Your task to perform on an android device: choose inbox layout in the gmail app Image 0: 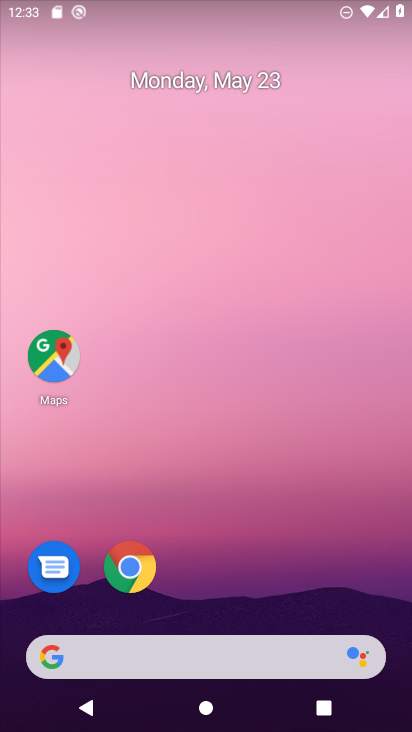
Step 0: drag from (186, 627) to (219, 137)
Your task to perform on an android device: choose inbox layout in the gmail app Image 1: 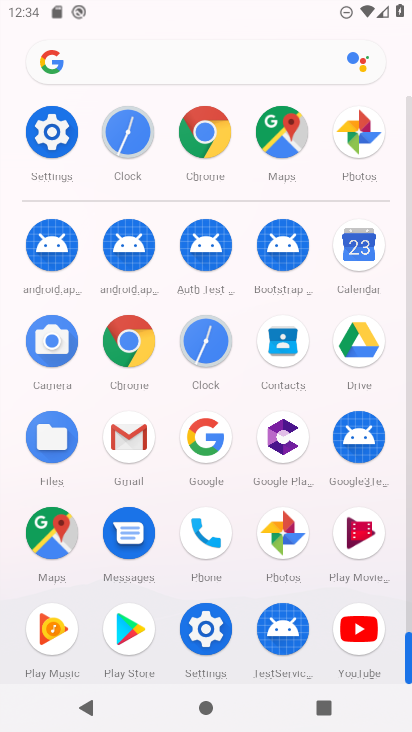
Step 1: click (219, 137)
Your task to perform on an android device: choose inbox layout in the gmail app Image 2: 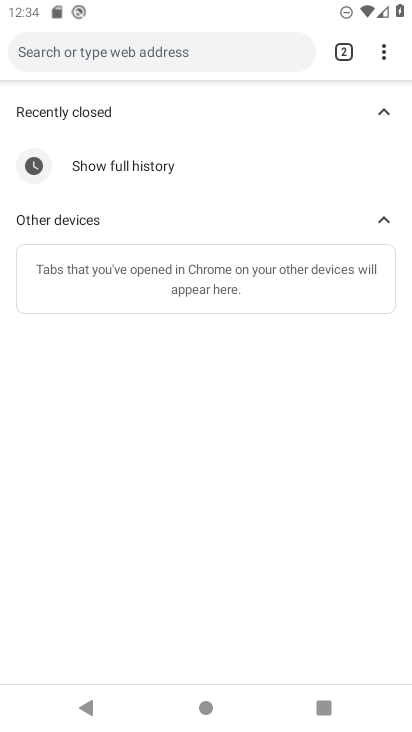
Step 2: press home button
Your task to perform on an android device: choose inbox layout in the gmail app Image 3: 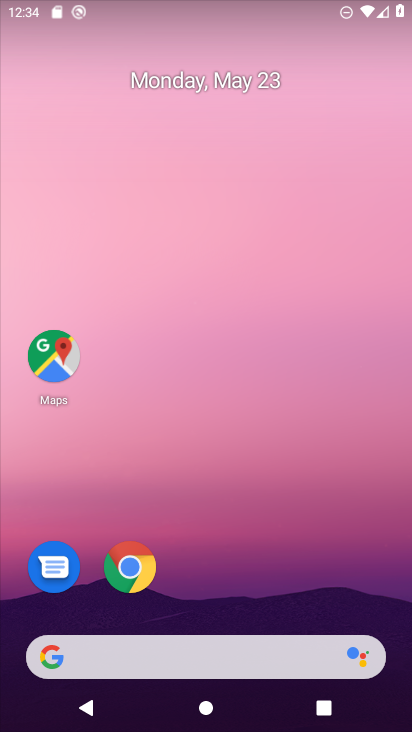
Step 3: click (220, 112)
Your task to perform on an android device: choose inbox layout in the gmail app Image 4: 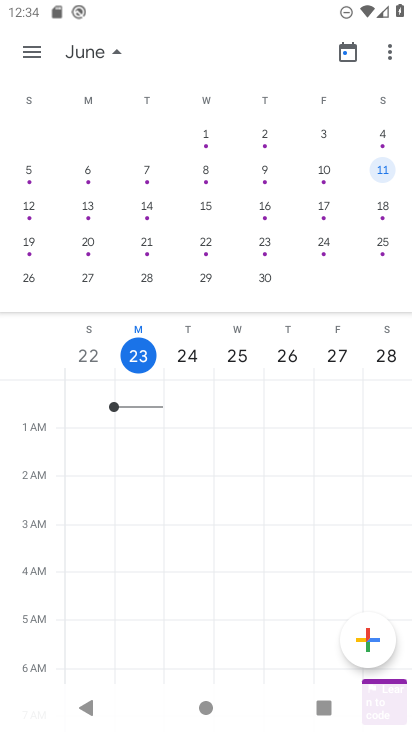
Step 4: press home button
Your task to perform on an android device: choose inbox layout in the gmail app Image 5: 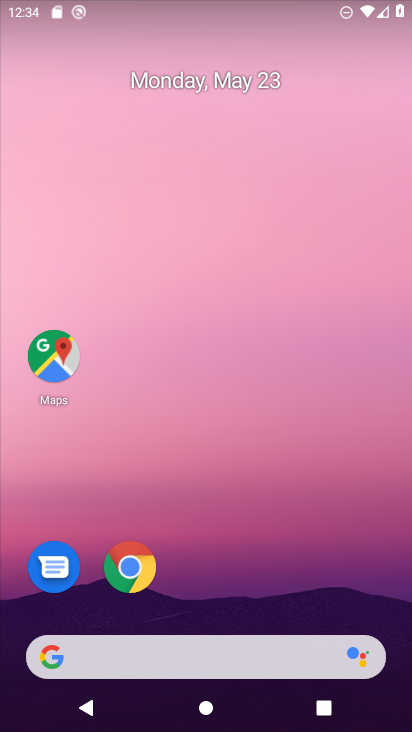
Step 5: drag from (186, 607) to (210, 13)
Your task to perform on an android device: choose inbox layout in the gmail app Image 6: 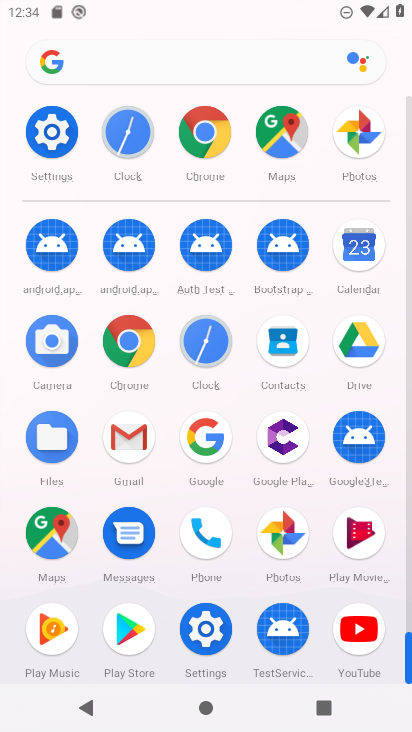
Step 6: click (122, 433)
Your task to perform on an android device: choose inbox layout in the gmail app Image 7: 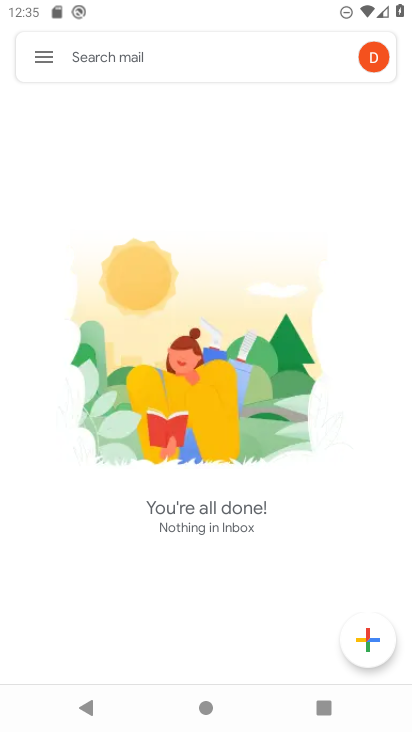
Step 7: click (39, 59)
Your task to perform on an android device: choose inbox layout in the gmail app Image 8: 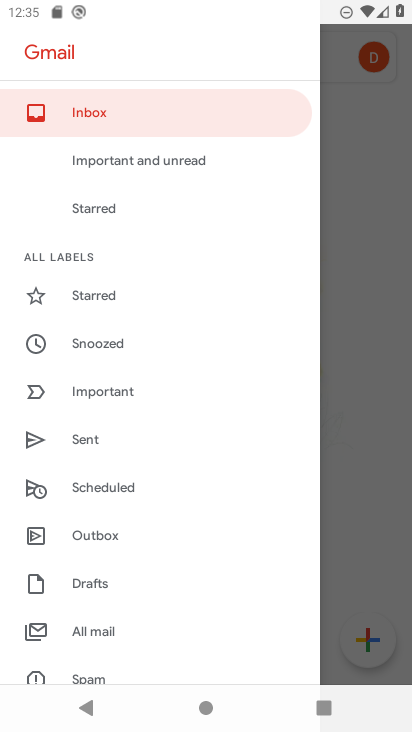
Step 8: drag from (83, 666) to (180, 234)
Your task to perform on an android device: choose inbox layout in the gmail app Image 9: 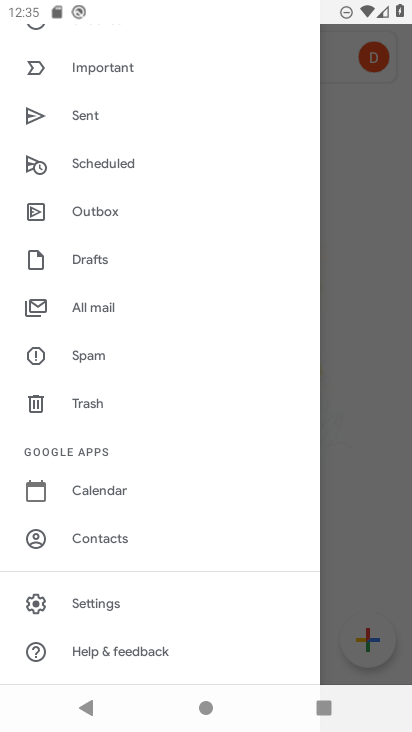
Step 9: click (103, 602)
Your task to perform on an android device: choose inbox layout in the gmail app Image 10: 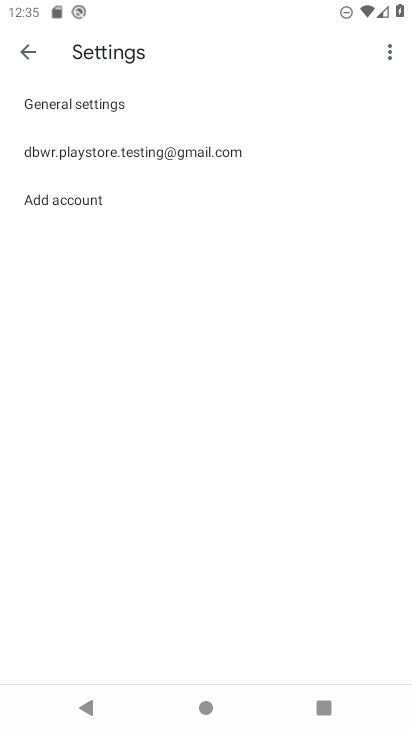
Step 10: click (139, 163)
Your task to perform on an android device: choose inbox layout in the gmail app Image 11: 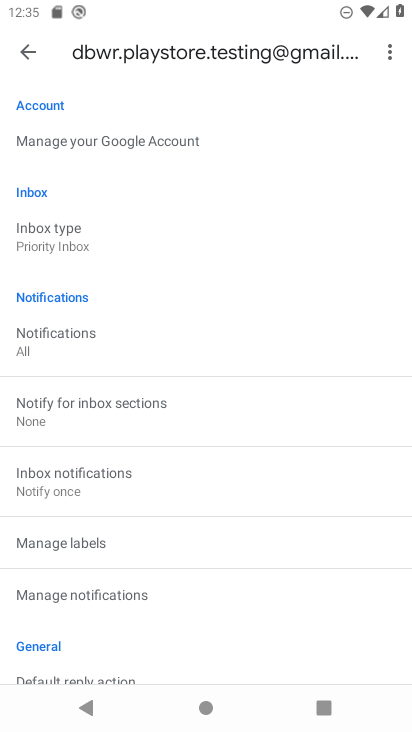
Step 11: click (77, 260)
Your task to perform on an android device: choose inbox layout in the gmail app Image 12: 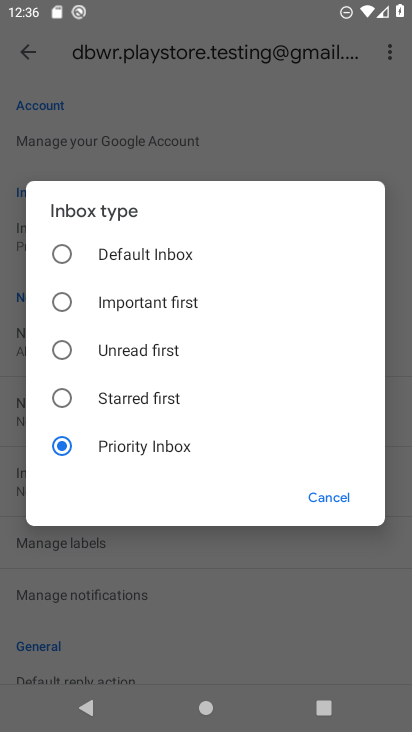
Step 12: click (114, 404)
Your task to perform on an android device: choose inbox layout in the gmail app Image 13: 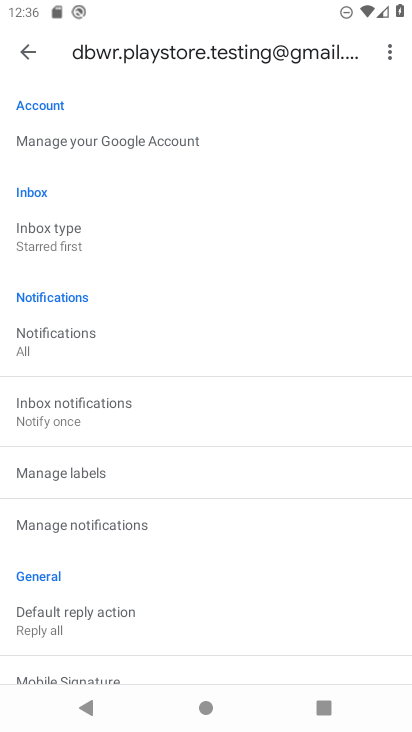
Step 13: click (84, 251)
Your task to perform on an android device: choose inbox layout in the gmail app Image 14: 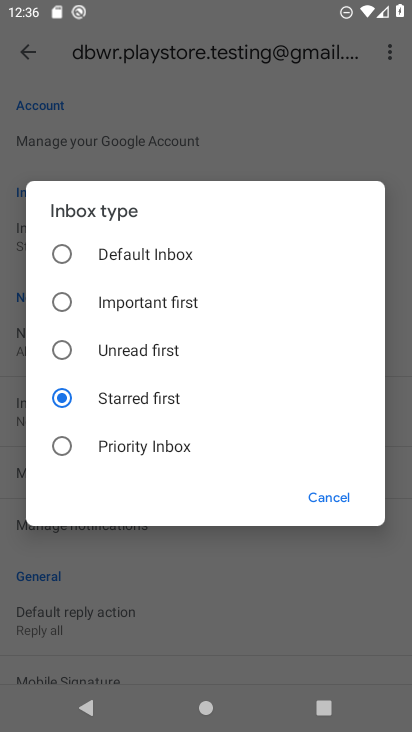
Step 14: click (112, 252)
Your task to perform on an android device: choose inbox layout in the gmail app Image 15: 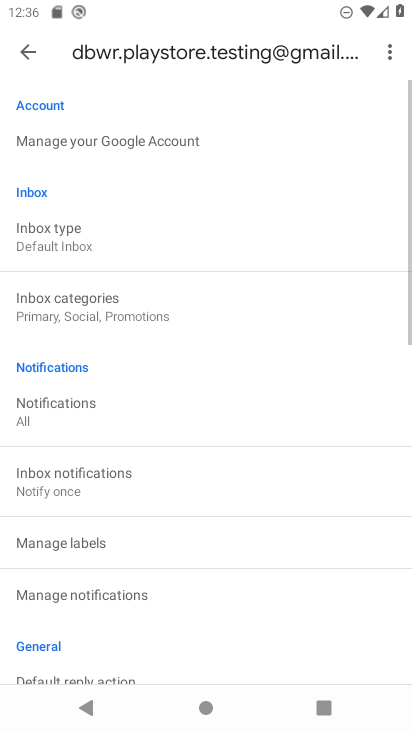
Step 15: task complete